Your task to perform on an android device: Open the map Image 0: 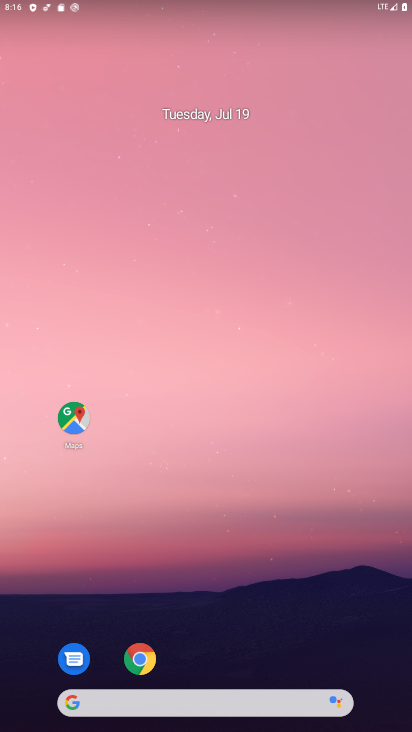
Step 0: press home button
Your task to perform on an android device: Open the map Image 1: 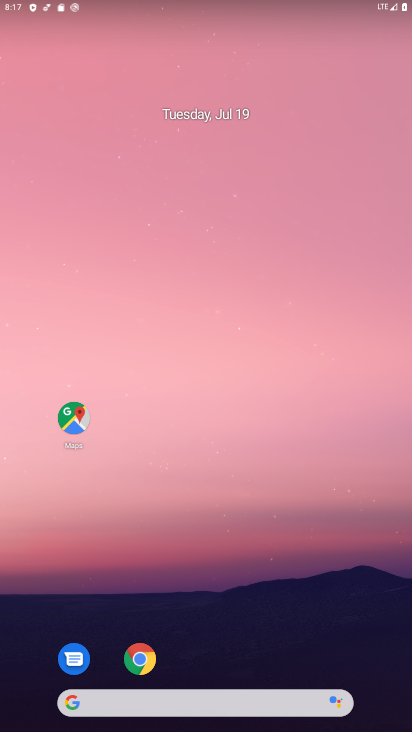
Step 1: click (61, 414)
Your task to perform on an android device: Open the map Image 2: 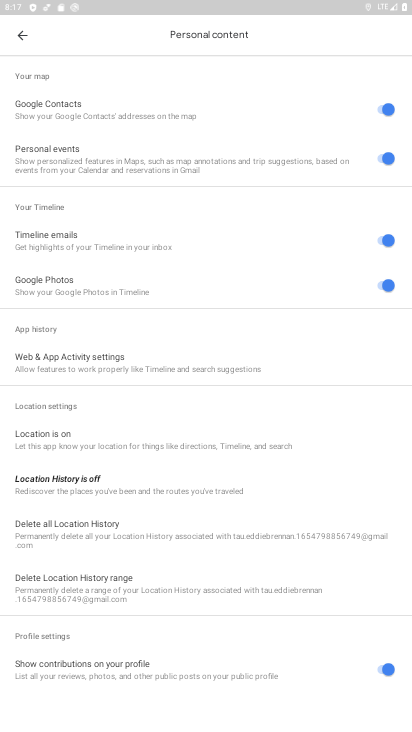
Step 2: task complete